Your task to perform on an android device: turn pop-ups off in chrome Image 0: 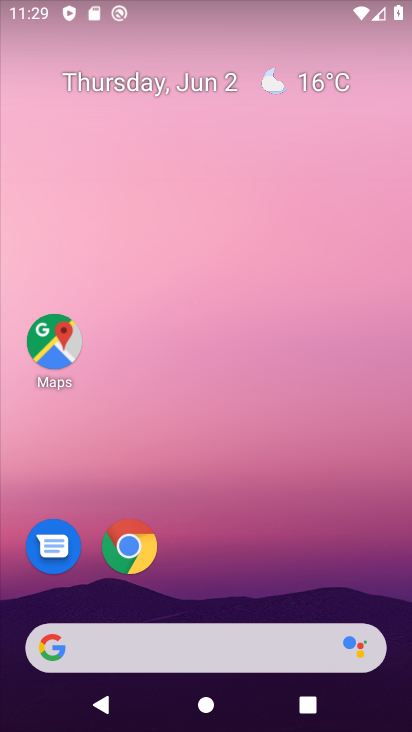
Step 0: drag from (329, 570) to (346, 154)
Your task to perform on an android device: turn pop-ups off in chrome Image 1: 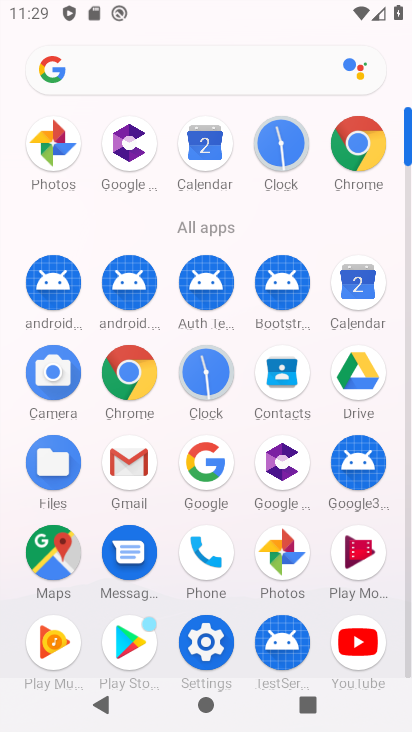
Step 1: click (201, 669)
Your task to perform on an android device: turn pop-ups off in chrome Image 2: 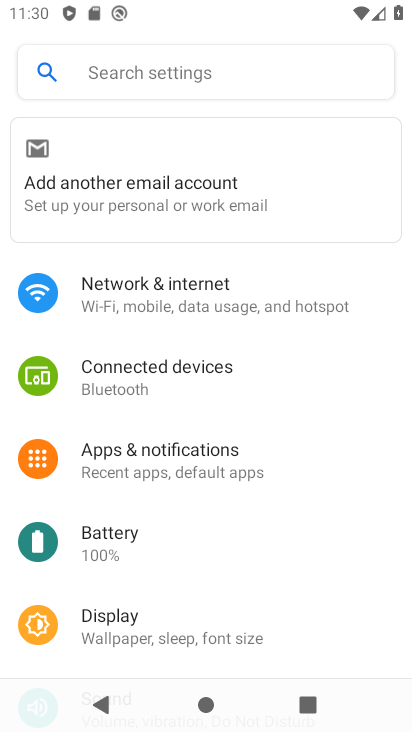
Step 2: press home button
Your task to perform on an android device: turn pop-ups off in chrome Image 3: 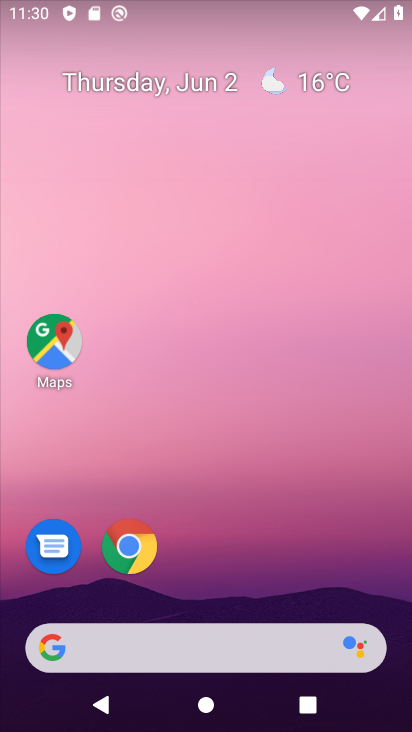
Step 3: drag from (327, 549) to (320, 82)
Your task to perform on an android device: turn pop-ups off in chrome Image 4: 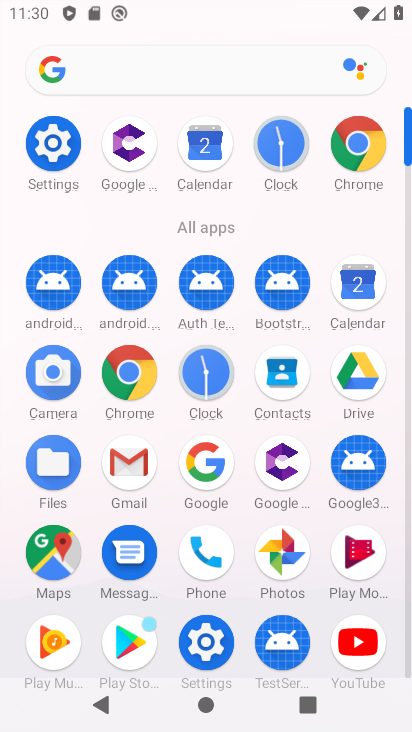
Step 4: click (119, 379)
Your task to perform on an android device: turn pop-ups off in chrome Image 5: 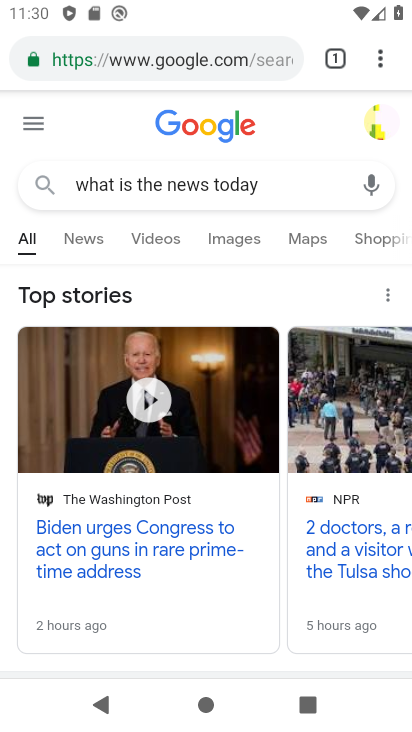
Step 5: drag from (370, 59) to (226, 563)
Your task to perform on an android device: turn pop-ups off in chrome Image 6: 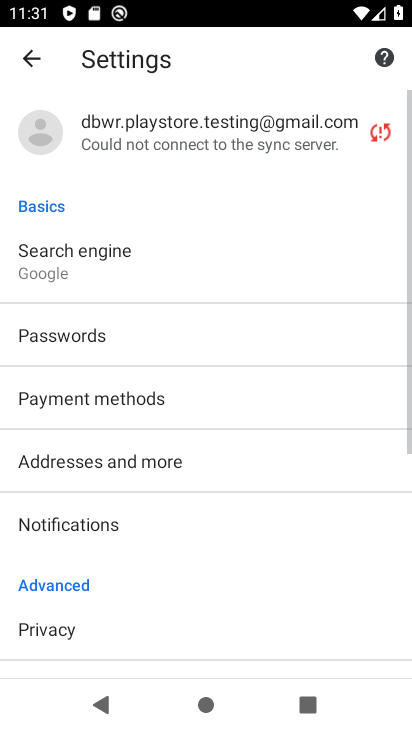
Step 6: drag from (179, 600) to (237, 296)
Your task to perform on an android device: turn pop-ups off in chrome Image 7: 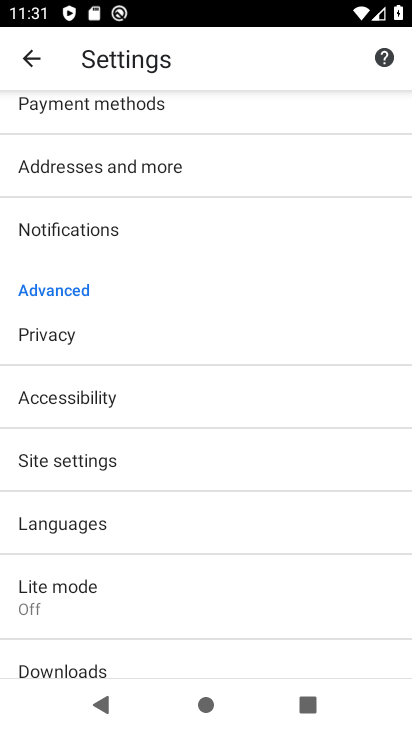
Step 7: click (183, 450)
Your task to perform on an android device: turn pop-ups off in chrome Image 8: 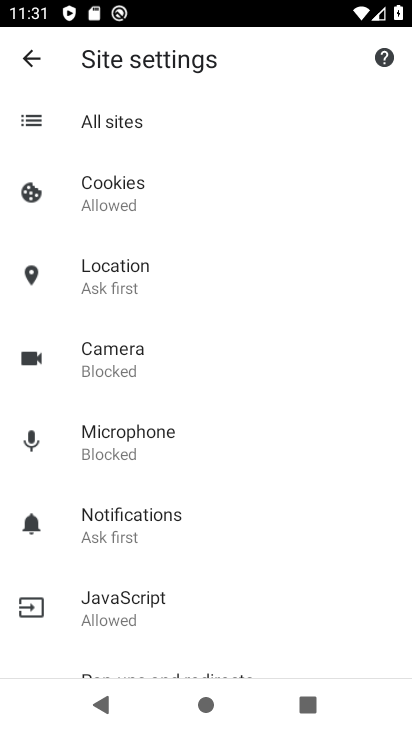
Step 8: drag from (192, 578) to (227, 374)
Your task to perform on an android device: turn pop-ups off in chrome Image 9: 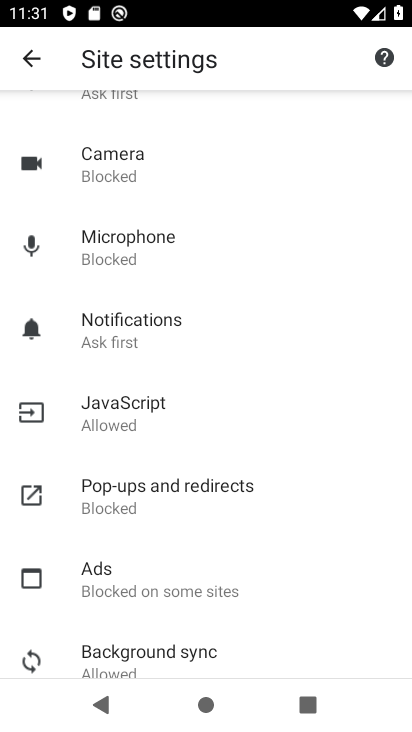
Step 9: click (211, 485)
Your task to perform on an android device: turn pop-ups off in chrome Image 10: 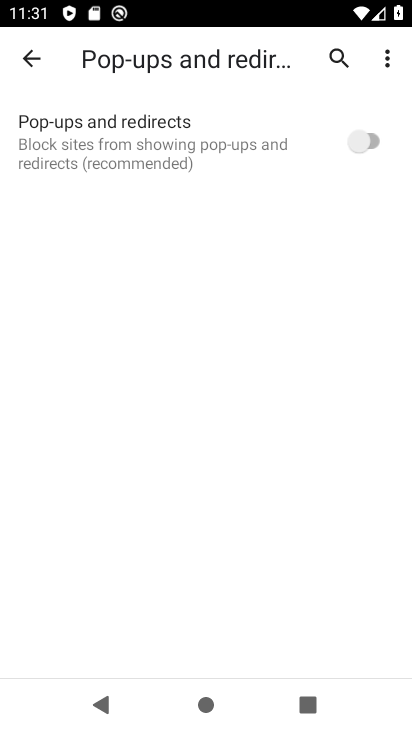
Step 10: task complete